Your task to perform on an android device: open chrome and create a bookmark for the current page Image 0: 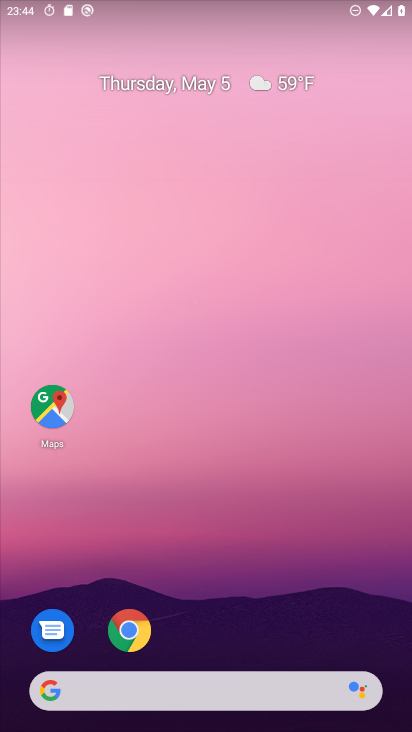
Step 0: drag from (314, 622) to (283, 118)
Your task to perform on an android device: open chrome and create a bookmark for the current page Image 1: 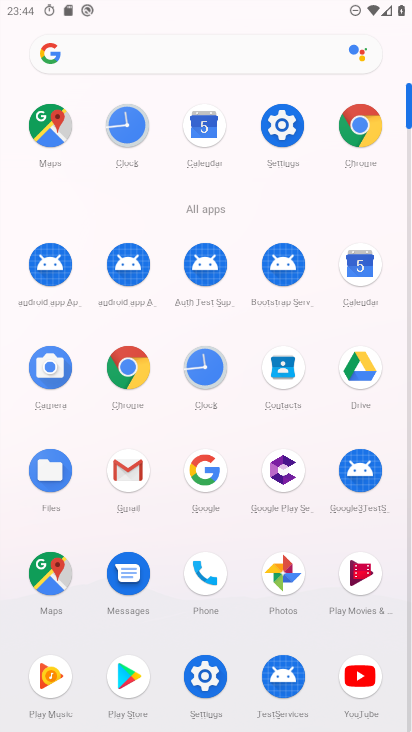
Step 1: click (356, 132)
Your task to perform on an android device: open chrome and create a bookmark for the current page Image 2: 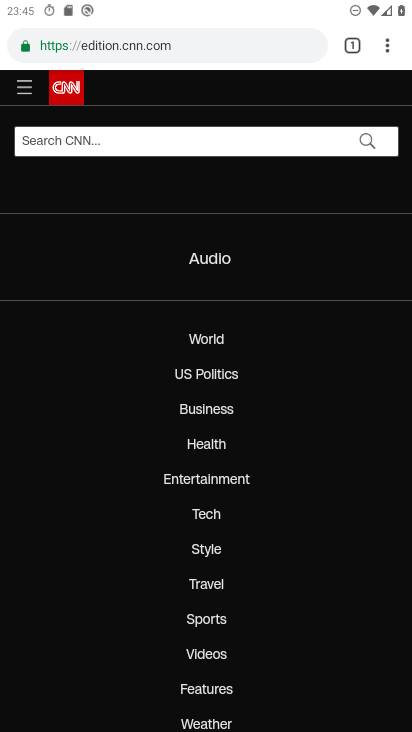
Step 2: click (386, 41)
Your task to perform on an android device: open chrome and create a bookmark for the current page Image 3: 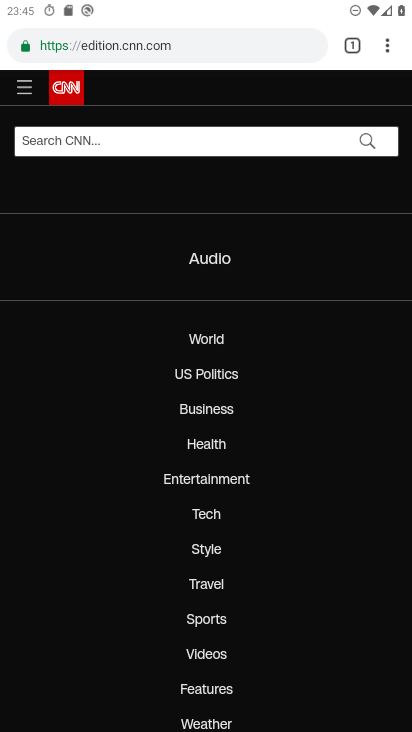
Step 3: task complete